Your task to perform on an android device: add a label to a message in the gmail app Image 0: 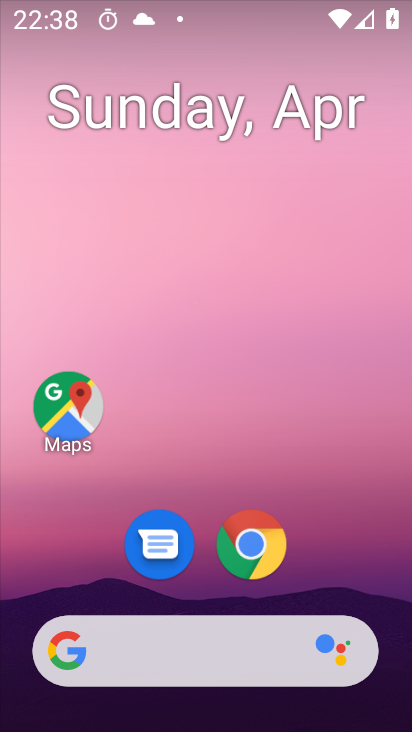
Step 0: drag from (328, 548) to (335, 213)
Your task to perform on an android device: add a label to a message in the gmail app Image 1: 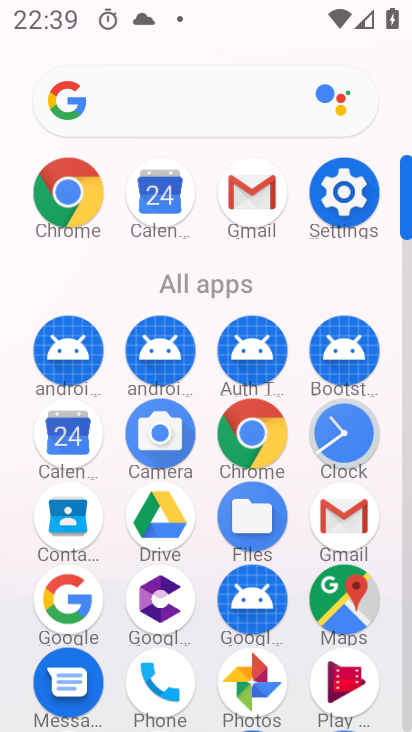
Step 1: click (236, 194)
Your task to perform on an android device: add a label to a message in the gmail app Image 2: 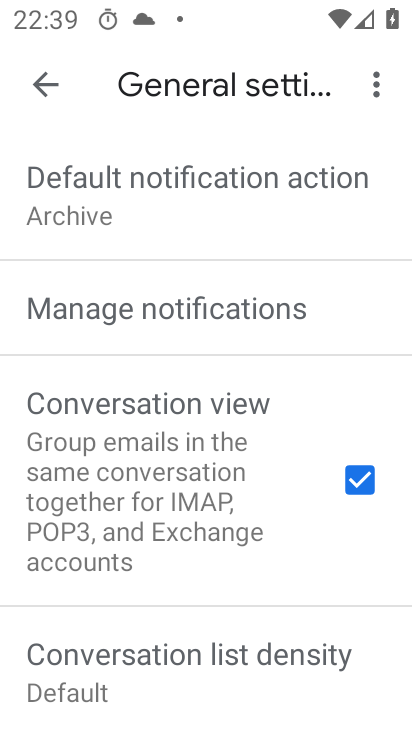
Step 2: press back button
Your task to perform on an android device: add a label to a message in the gmail app Image 3: 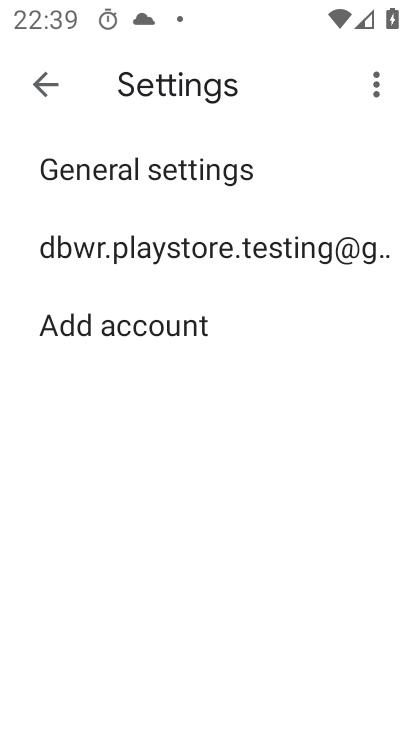
Step 3: press back button
Your task to perform on an android device: add a label to a message in the gmail app Image 4: 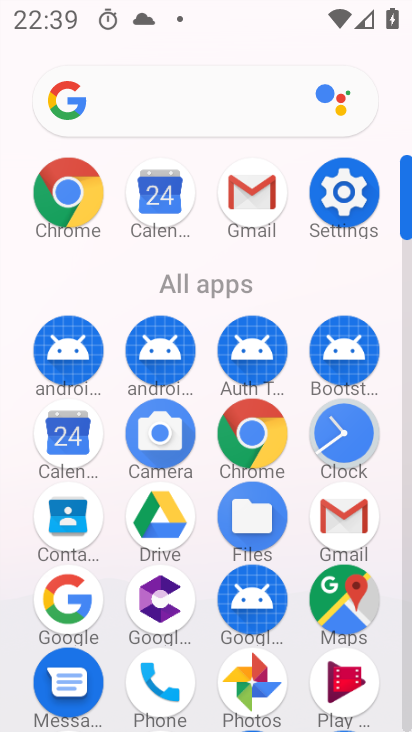
Step 4: click (249, 187)
Your task to perform on an android device: add a label to a message in the gmail app Image 5: 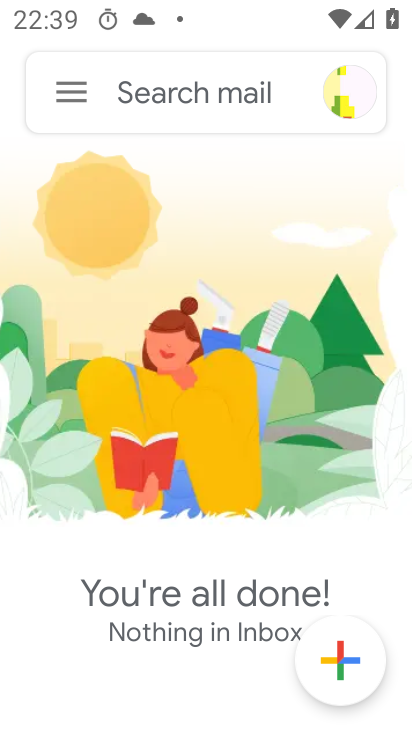
Step 5: click (69, 87)
Your task to perform on an android device: add a label to a message in the gmail app Image 6: 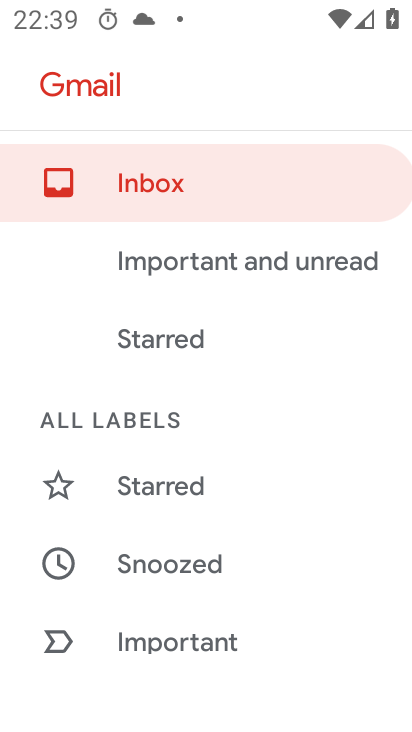
Step 6: drag from (225, 631) to (314, 139)
Your task to perform on an android device: add a label to a message in the gmail app Image 7: 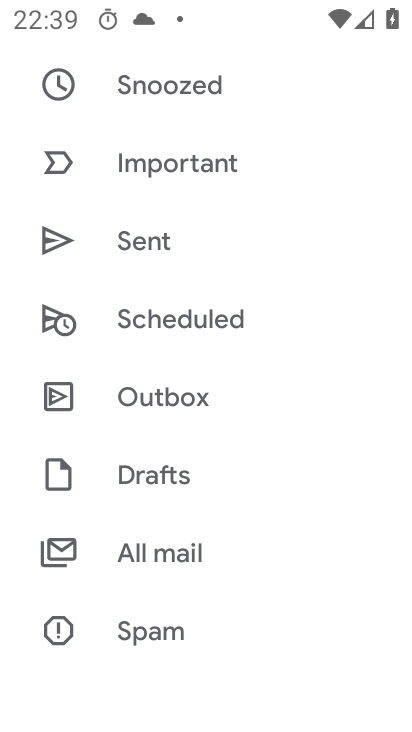
Step 7: click (171, 542)
Your task to perform on an android device: add a label to a message in the gmail app Image 8: 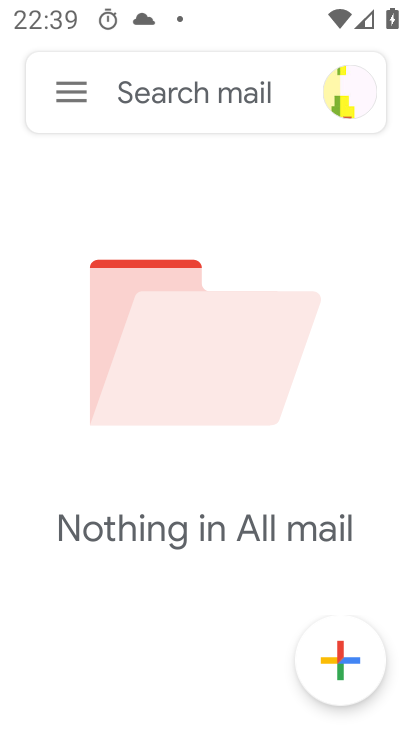
Step 8: task complete